Your task to perform on an android device: Open Google Chrome Image 0: 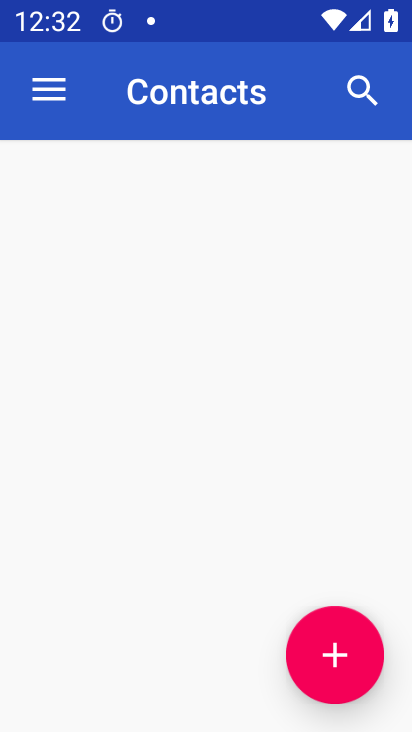
Step 0: drag from (364, 474) to (322, 17)
Your task to perform on an android device: Open Google Chrome Image 1: 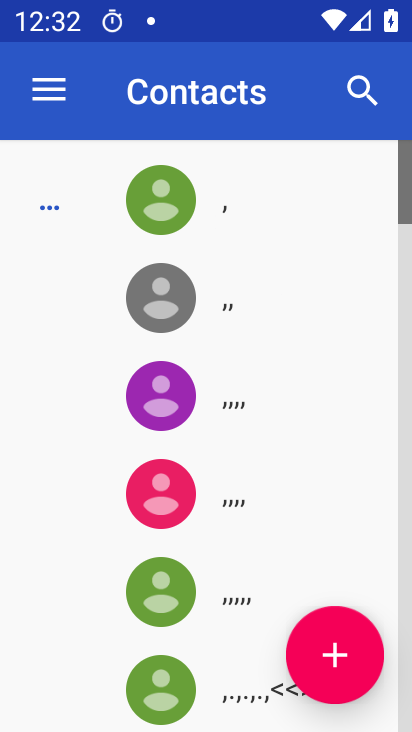
Step 1: press home button
Your task to perform on an android device: Open Google Chrome Image 2: 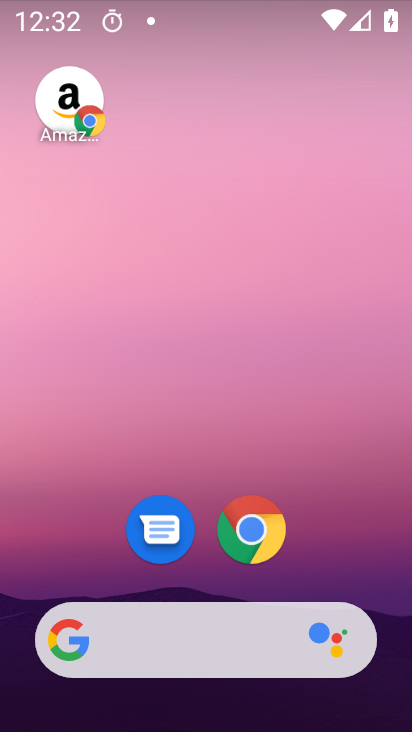
Step 2: drag from (354, 488) to (350, 35)
Your task to perform on an android device: Open Google Chrome Image 3: 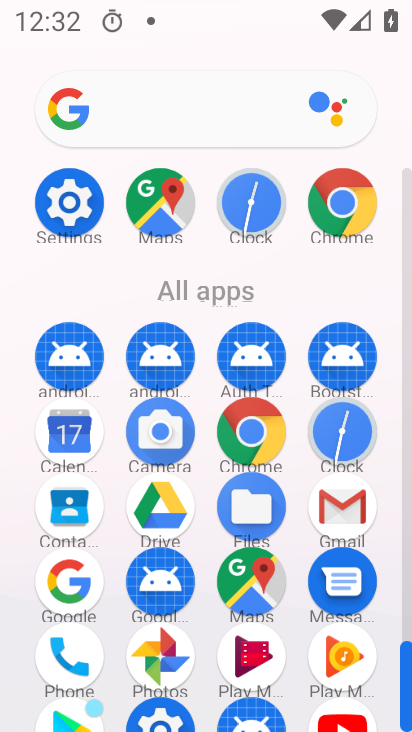
Step 3: click (178, 648)
Your task to perform on an android device: Open Google Chrome Image 4: 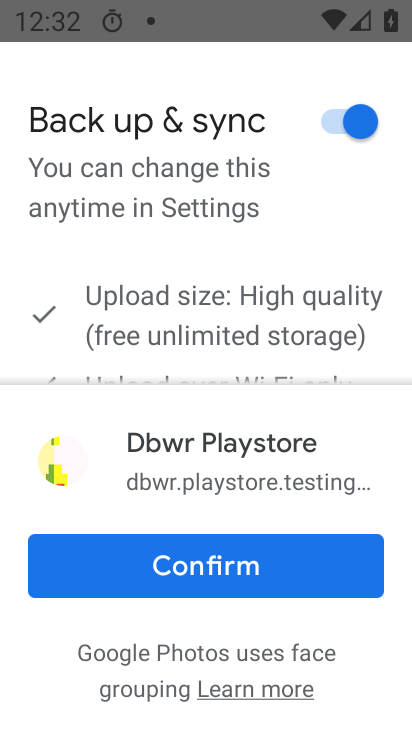
Step 4: task complete